Your task to perform on an android device: Show me recent news Image 0: 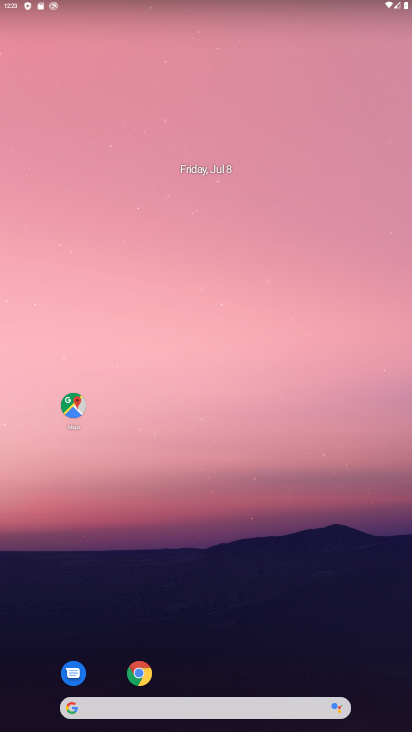
Step 0: drag from (199, 658) to (241, 189)
Your task to perform on an android device: Show me recent news Image 1: 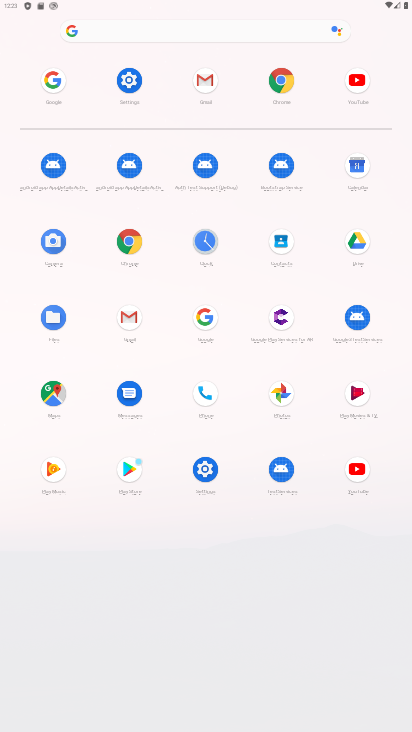
Step 1: click (207, 313)
Your task to perform on an android device: Show me recent news Image 2: 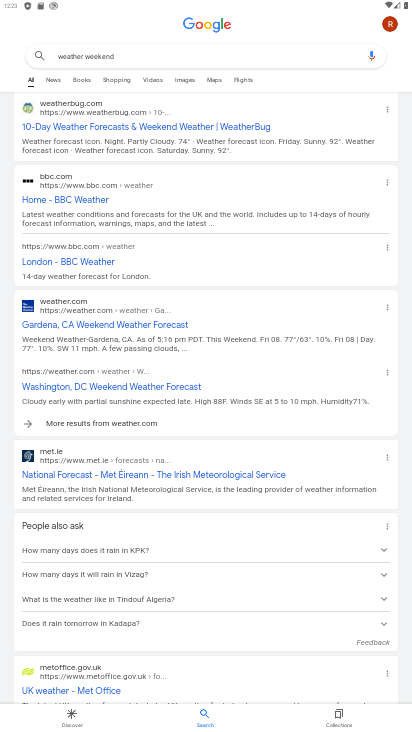
Step 2: click (192, 48)
Your task to perform on an android device: Show me recent news Image 3: 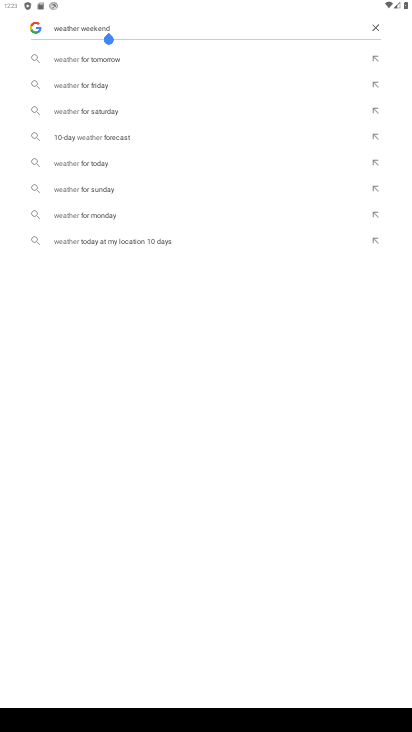
Step 3: click (372, 23)
Your task to perform on an android device: Show me recent news Image 4: 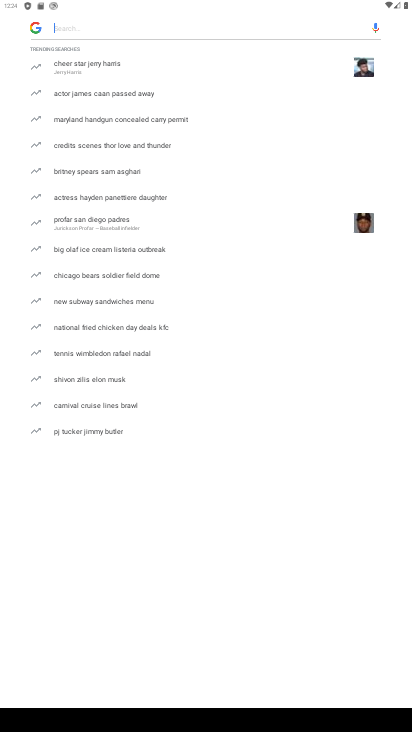
Step 4: type "recent news"
Your task to perform on an android device: Show me recent news Image 5: 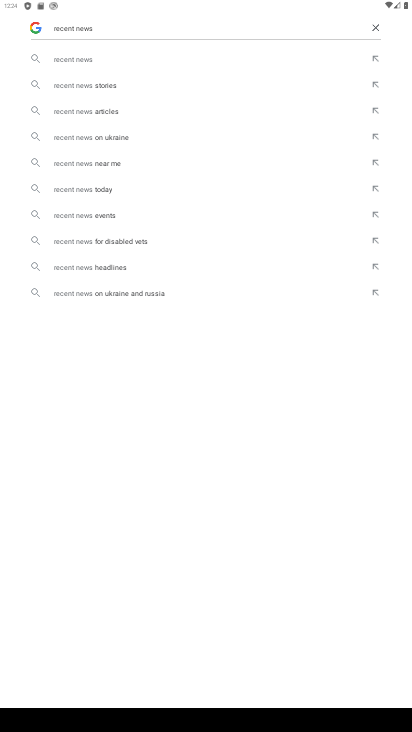
Step 5: click (94, 61)
Your task to perform on an android device: Show me recent news Image 6: 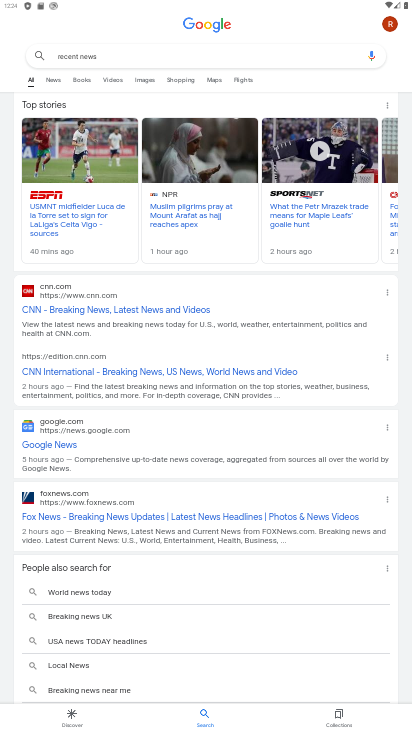
Step 6: task complete